Your task to perform on an android device: toggle show notifications on the lock screen Image 0: 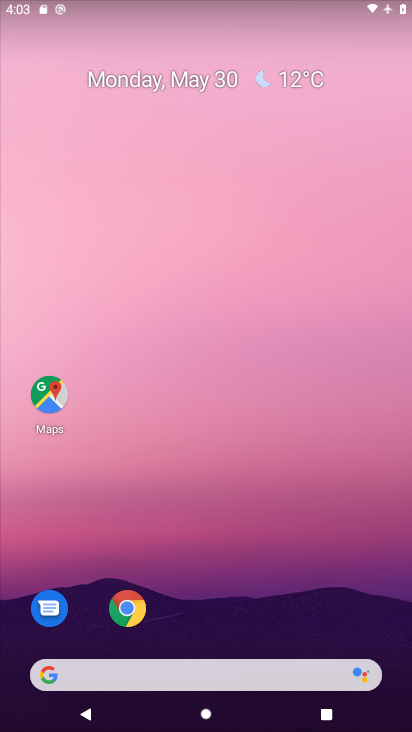
Step 0: drag from (204, 233) to (109, 21)
Your task to perform on an android device: toggle show notifications on the lock screen Image 1: 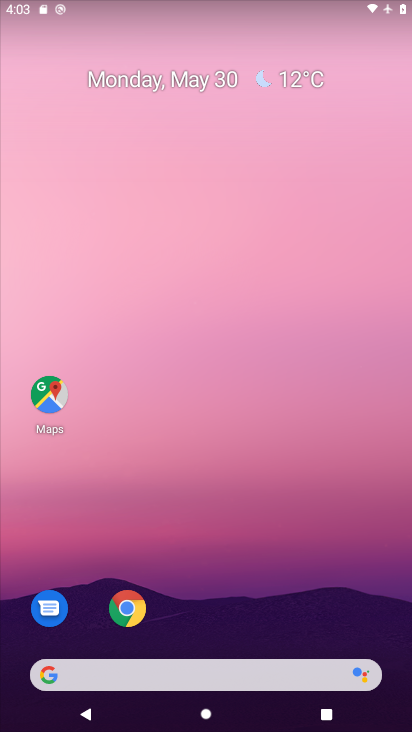
Step 1: drag from (307, 578) to (102, 55)
Your task to perform on an android device: toggle show notifications on the lock screen Image 2: 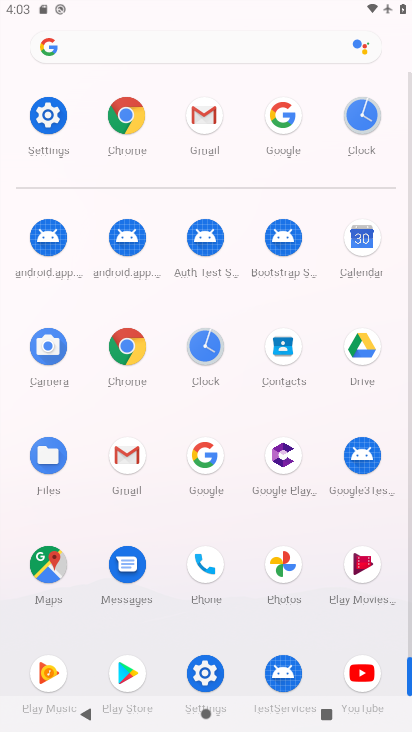
Step 2: click (30, 115)
Your task to perform on an android device: toggle show notifications on the lock screen Image 3: 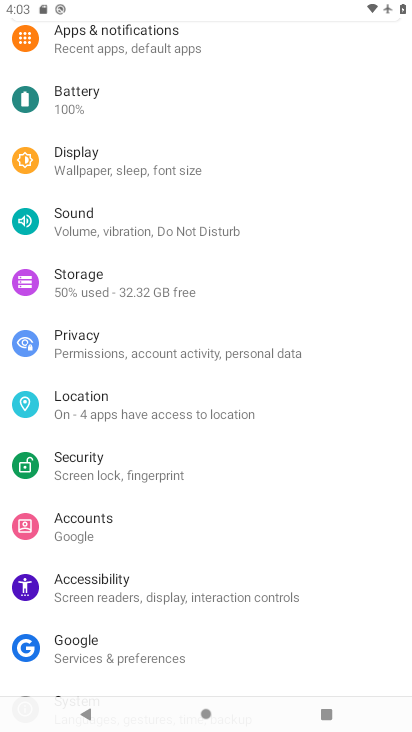
Step 3: click (169, 45)
Your task to perform on an android device: toggle show notifications on the lock screen Image 4: 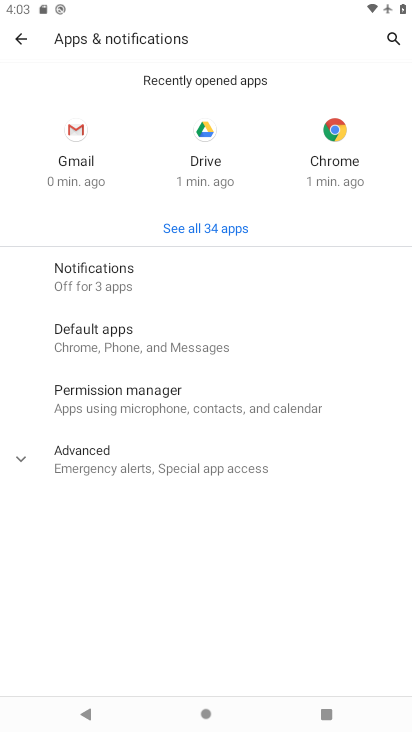
Step 4: click (153, 287)
Your task to perform on an android device: toggle show notifications on the lock screen Image 5: 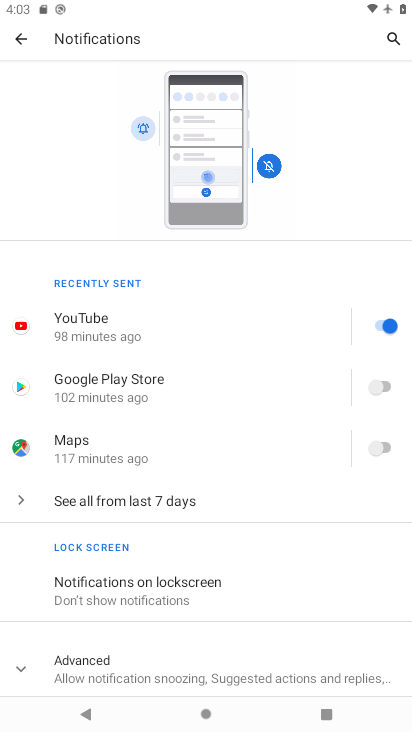
Step 5: click (194, 596)
Your task to perform on an android device: toggle show notifications on the lock screen Image 6: 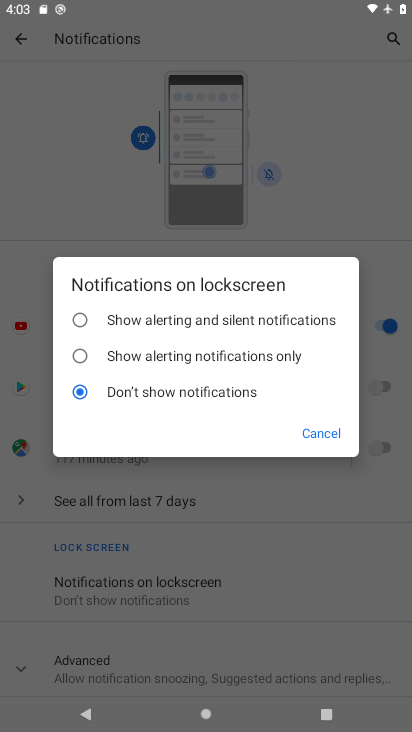
Step 6: click (193, 311)
Your task to perform on an android device: toggle show notifications on the lock screen Image 7: 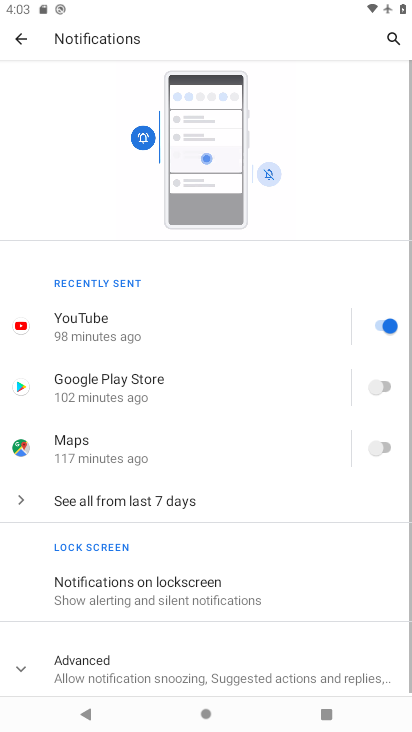
Step 7: task complete